Your task to perform on an android device: change the clock display to show seconds Image 0: 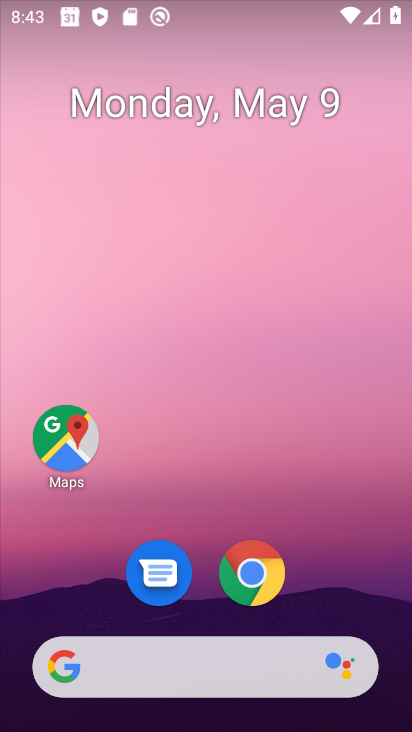
Step 0: drag from (330, 599) to (303, 27)
Your task to perform on an android device: change the clock display to show seconds Image 1: 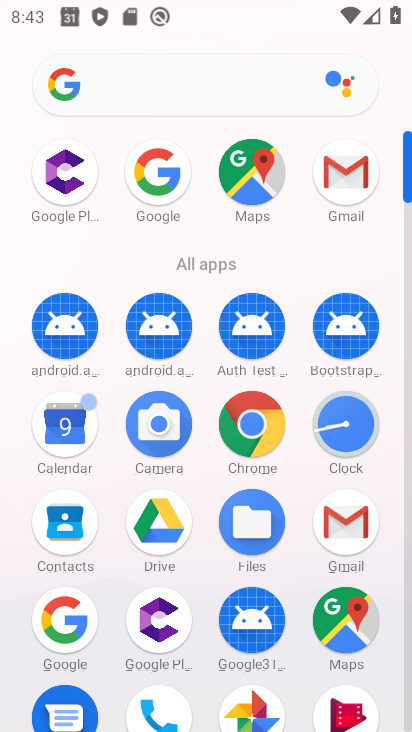
Step 1: click (348, 420)
Your task to perform on an android device: change the clock display to show seconds Image 2: 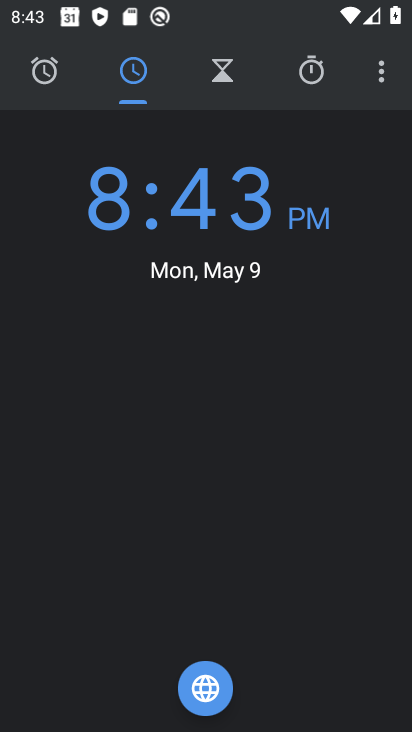
Step 2: click (379, 70)
Your task to perform on an android device: change the clock display to show seconds Image 3: 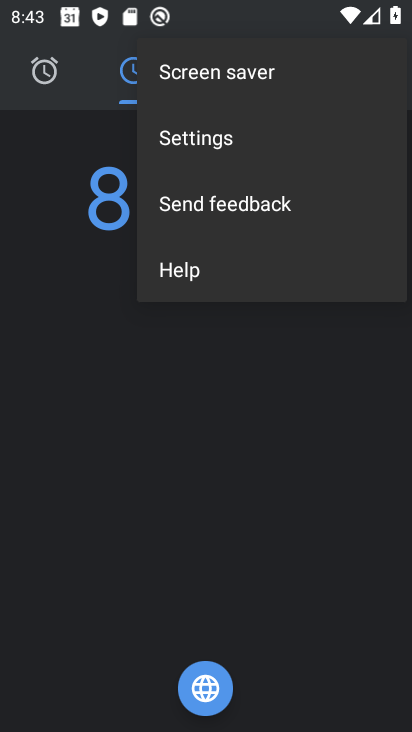
Step 3: click (237, 132)
Your task to perform on an android device: change the clock display to show seconds Image 4: 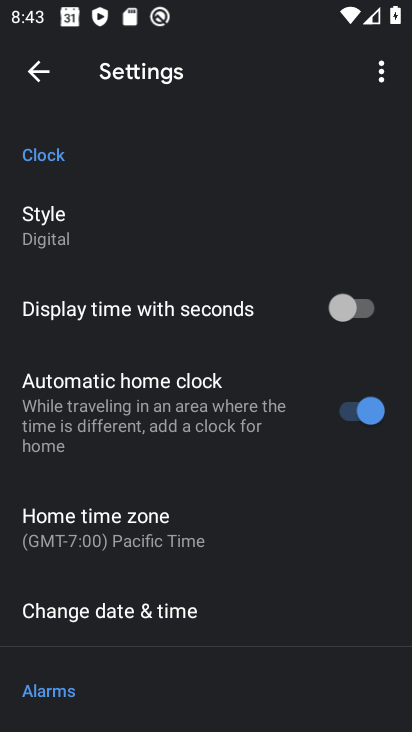
Step 4: click (362, 299)
Your task to perform on an android device: change the clock display to show seconds Image 5: 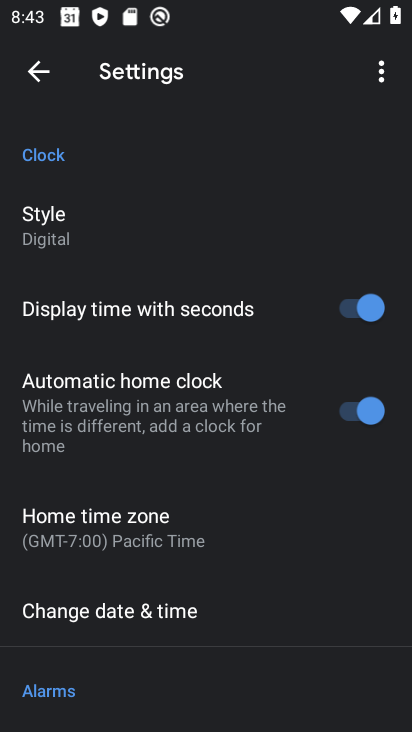
Step 5: task complete